Your task to perform on an android device: Open display settings Image 0: 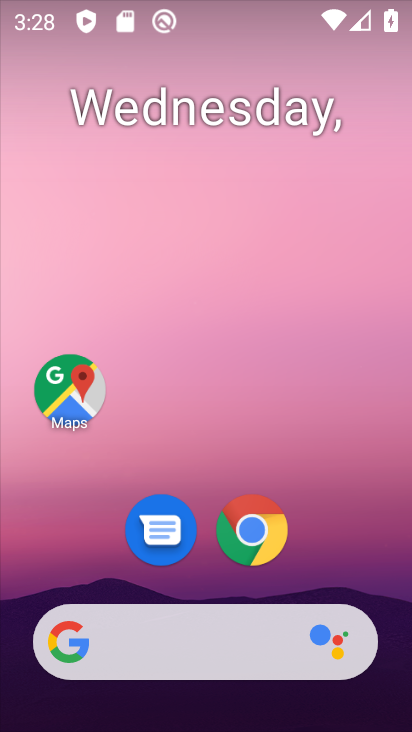
Step 0: drag from (372, 562) to (350, 132)
Your task to perform on an android device: Open display settings Image 1: 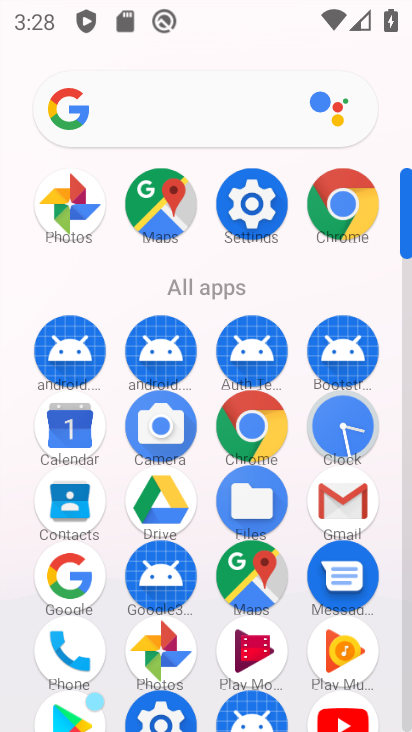
Step 1: click (260, 195)
Your task to perform on an android device: Open display settings Image 2: 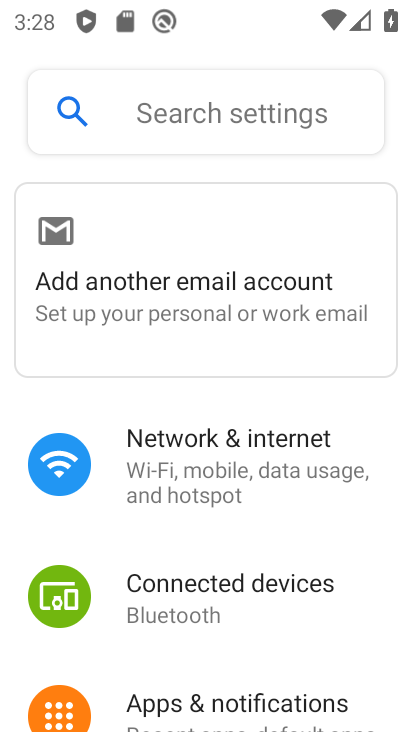
Step 2: drag from (365, 701) to (346, 143)
Your task to perform on an android device: Open display settings Image 3: 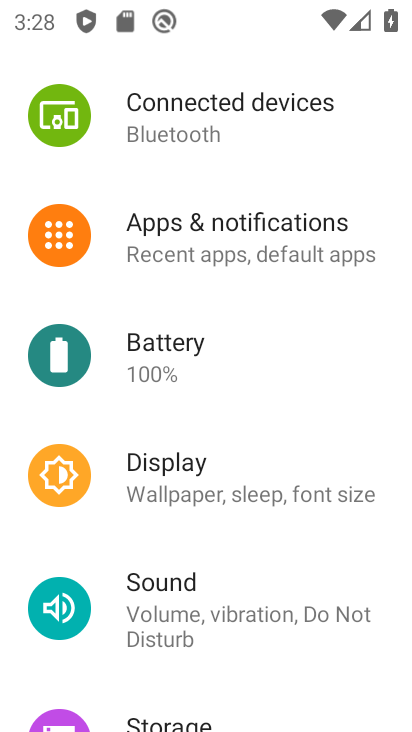
Step 3: click (215, 478)
Your task to perform on an android device: Open display settings Image 4: 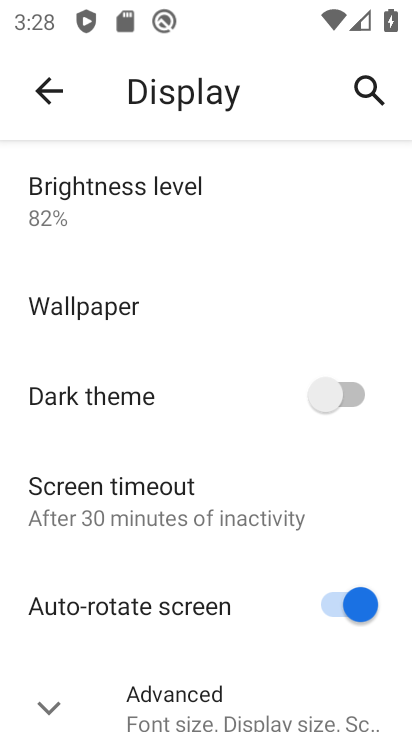
Step 4: task complete